Your task to perform on an android device: Open Wikipedia Image 0: 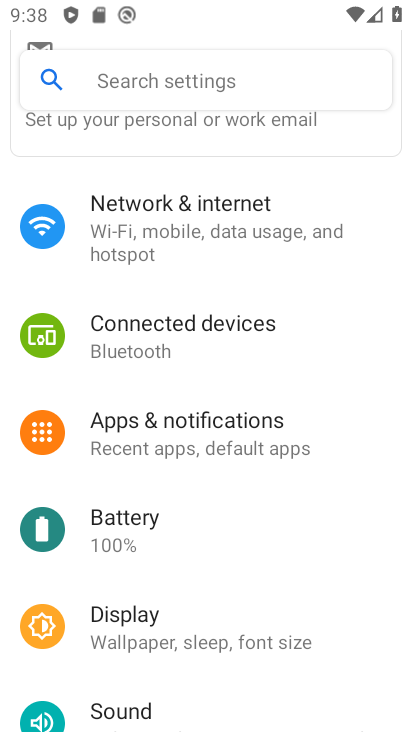
Step 0: press home button
Your task to perform on an android device: Open Wikipedia Image 1: 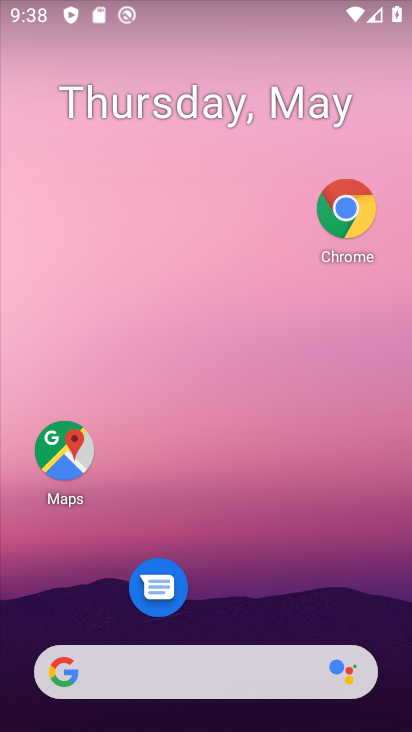
Step 1: drag from (211, 610) to (210, 0)
Your task to perform on an android device: Open Wikipedia Image 2: 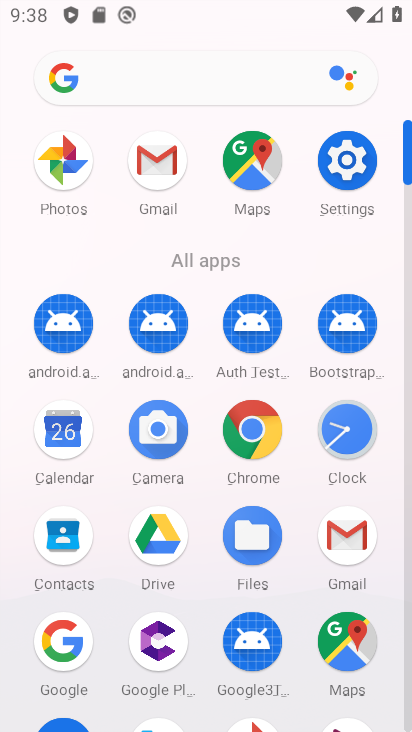
Step 2: click (246, 457)
Your task to perform on an android device: Open Wikipedia Image 3: 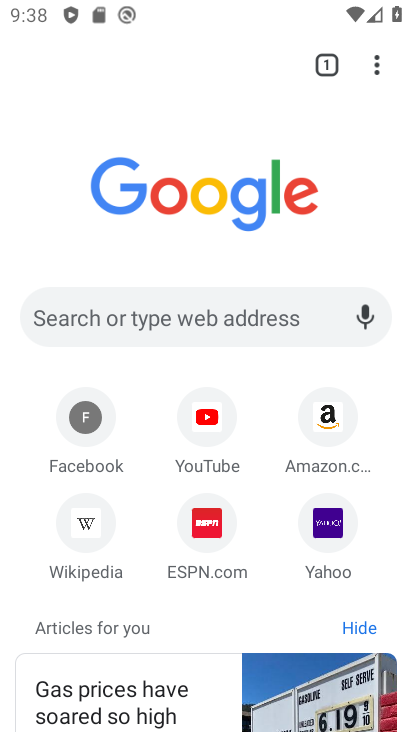
Step 3: click (90, 566)
Your task to perform on an android device: Open Wikipedia Image 4: 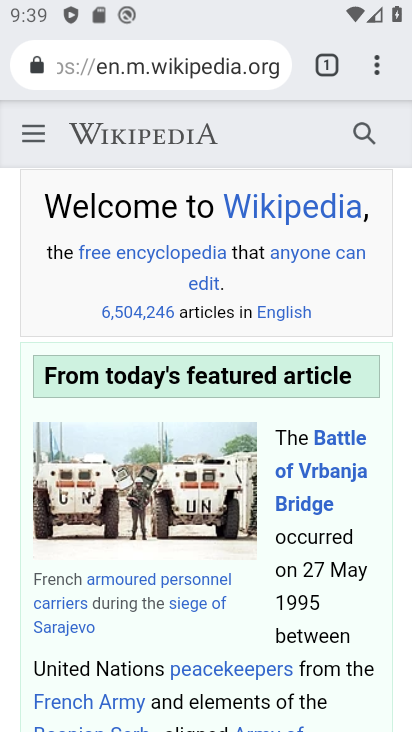
Step 4: task complete